Your task to perform on an android device: Show me popular games on the Play Store Image 0: 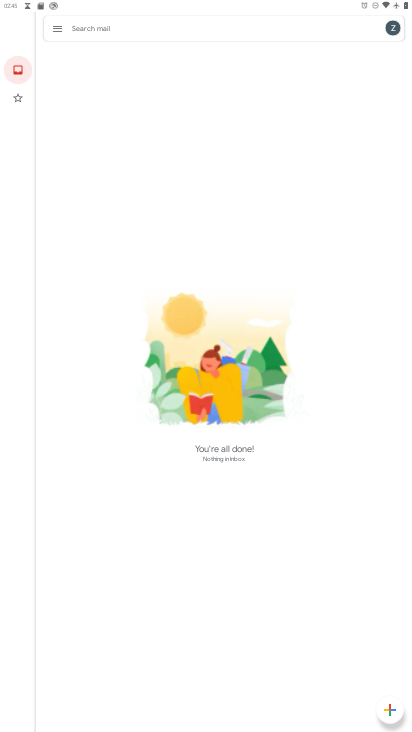
Step 0: press home button
Your task to perform on an android device: Show me popular games on the Play Store Image 1: 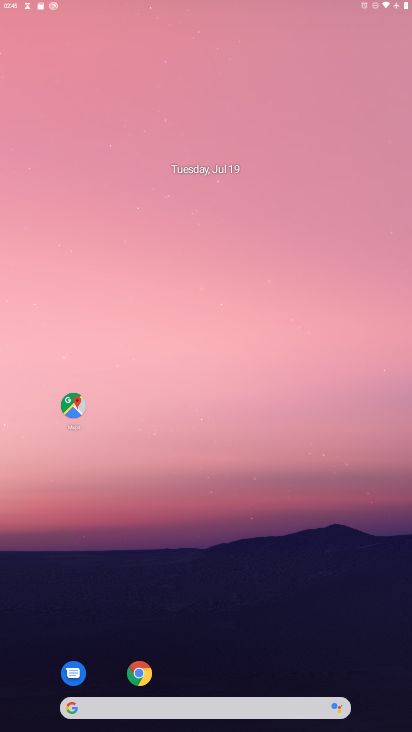
Step 1: drag from (177, 533) to (178, 261)
Your task to perform on an android device: Show me popular games on the Play Store Image 2: 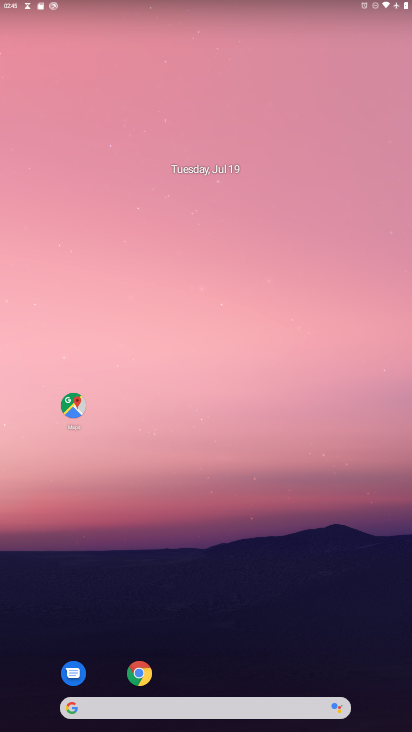
Step 2: drag from (235, 663) to (235, 64)
Your task to perform on an android device: Show me popular games on the Play Store Image 3: 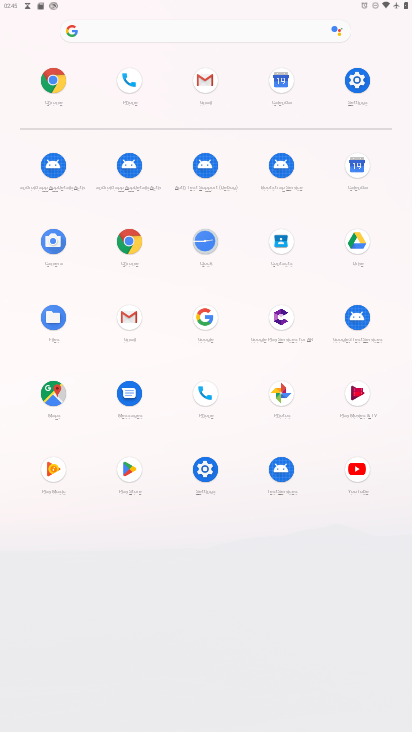
Step 3: drag from (51, 384) to (295, 560)
Your task to perform on an android device: Show me popular games on the Play Store Image 4: 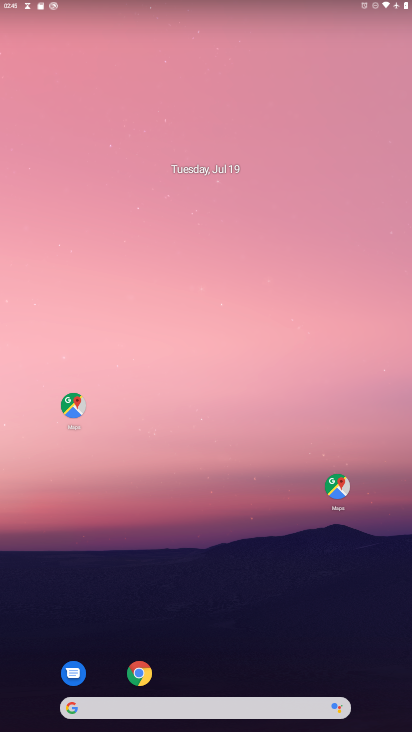
Step 4: click (245, 617)
Your task to perform on an android device: Show me popular games on the Play Store Image 5: 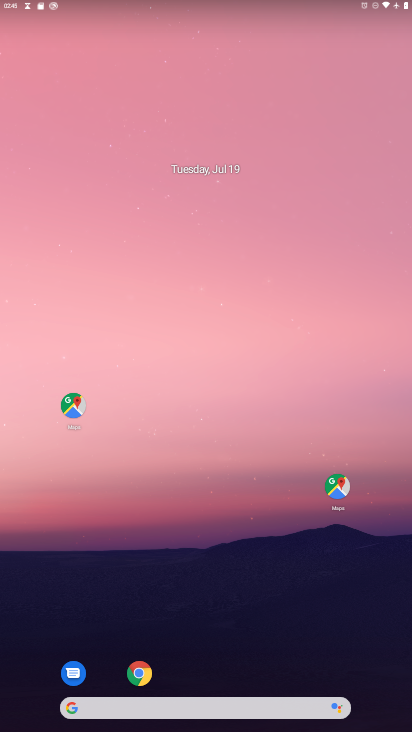
Step 5: drag from (249, 653) to (249, 199)
Your task to perform on an android device: Show me popular games on the Play Store Image 6: 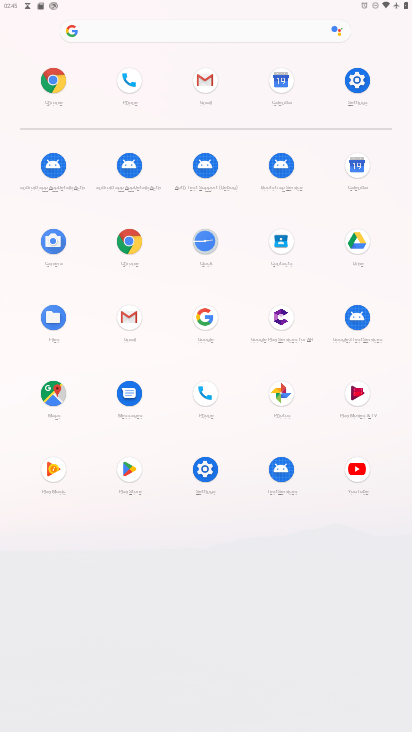
Step 6: click (127, 453)
Your task to perform on an android device: Show me popular games on the Play Store Image 7: 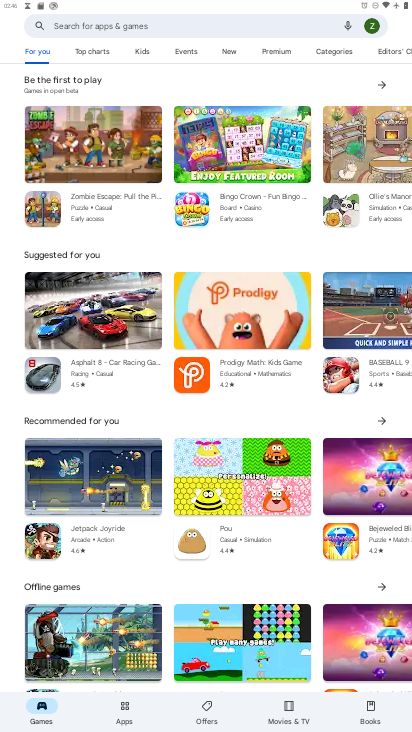
Step 7: task complete